Your task to perform on an android device: change your default location settings in chrome Image 0: 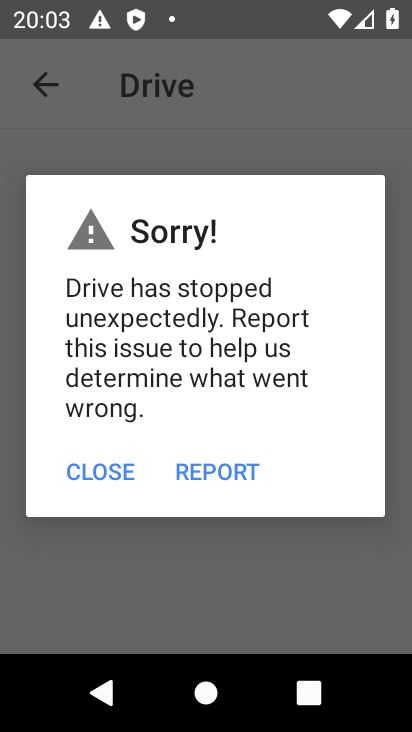
Step 0: press home button
Your task to perform on an android device: change your default location settings in chrome Image 1: 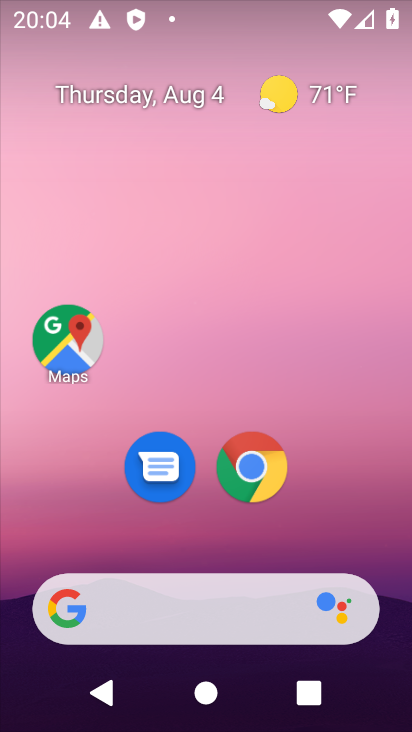
Step 1: drag from (392, 703) to (379, 249)
Your task to perform on an android device: change your default location settings in chrome Image 2: 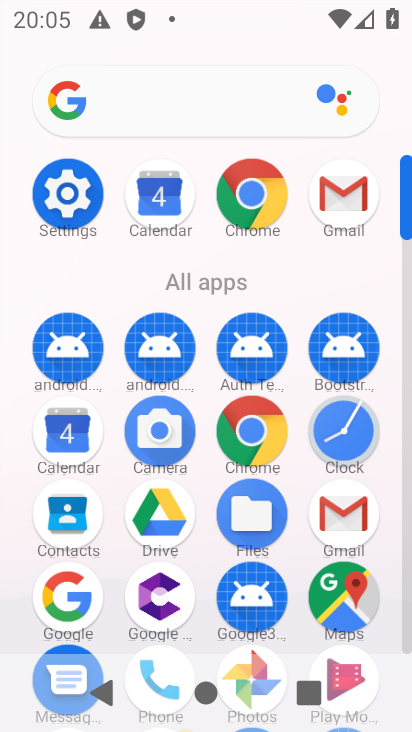
Step 2: click (262, 175)
Your task to perform on an android device: change your default location settings in chrome Image 3: 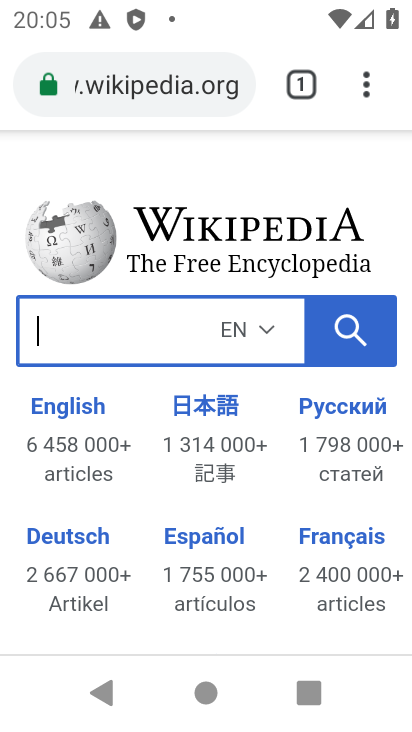
Step 3: press back button
Your task to perform on an android device: change your default location settings in chrome Image 4: 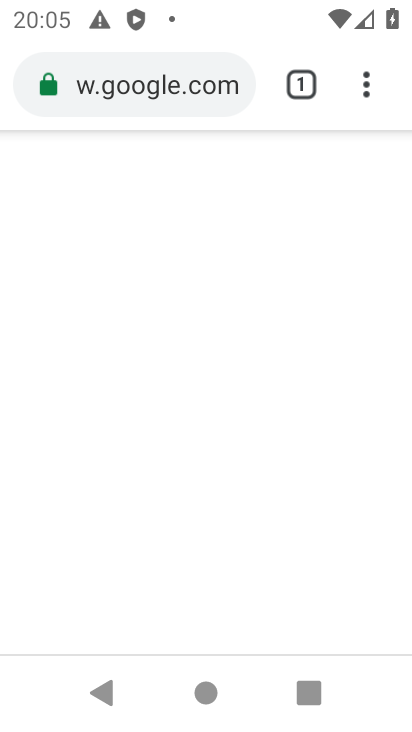
Step 4: press home button
Your task to perform on an android device: change your default location settings in chrome Image 5: 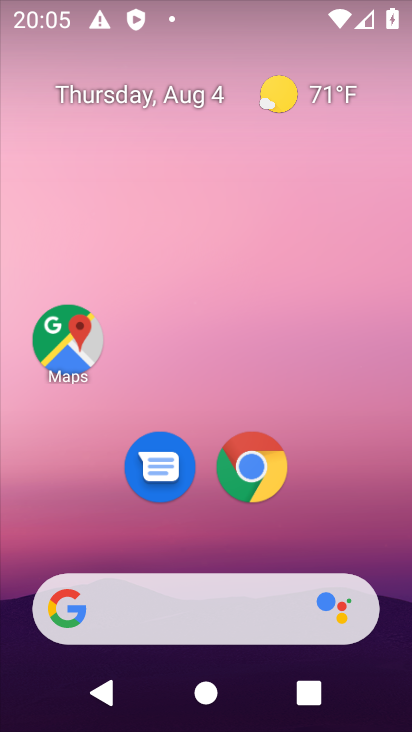
Step 5: click (238, 468)
Your task to perform on an android device: change your default location settings in chrome Image 6: 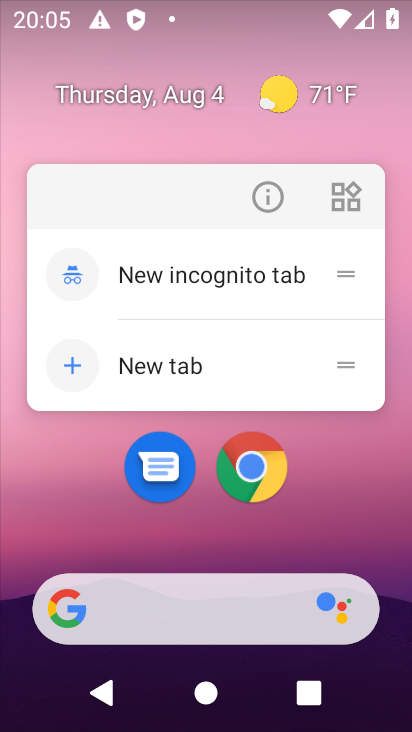
Step 6: click (274, 204)
Your task to perform on an android device: change your default location settings in chrome Image 7: 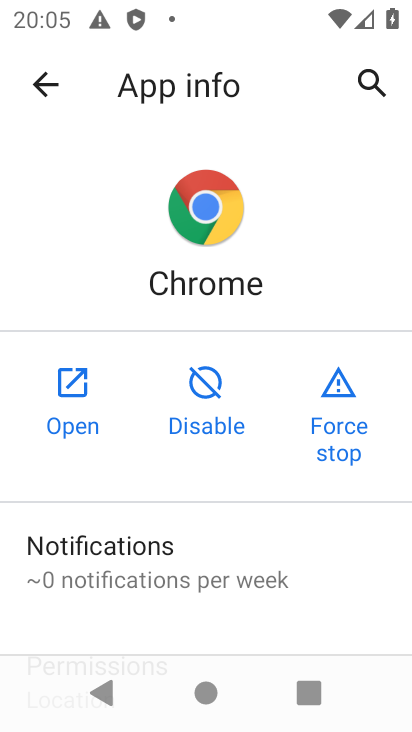
Step 7: drag from (167, 504) to (175, 119)
Your task to perform on an android device: change your default location settings in chrome Image 8: 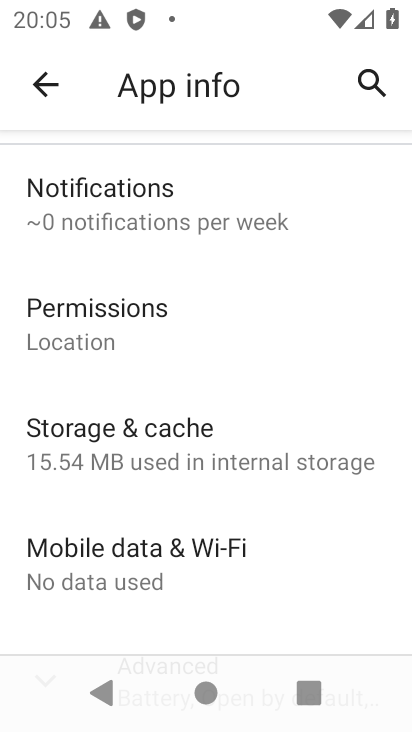
Step 8: click (122, 345)
Your task to perform on an android device: change your default location settings in chrome Image 9: 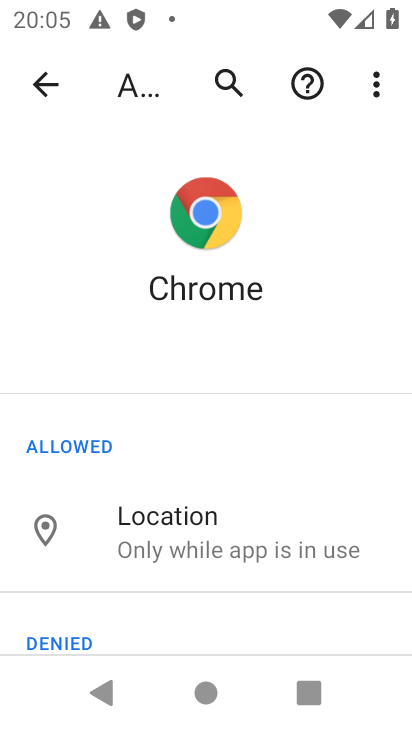
Step 9: drag from (208, 586) to (252, 348)
Your task to perform on an android device: change your default location settings in chrome Image 10: 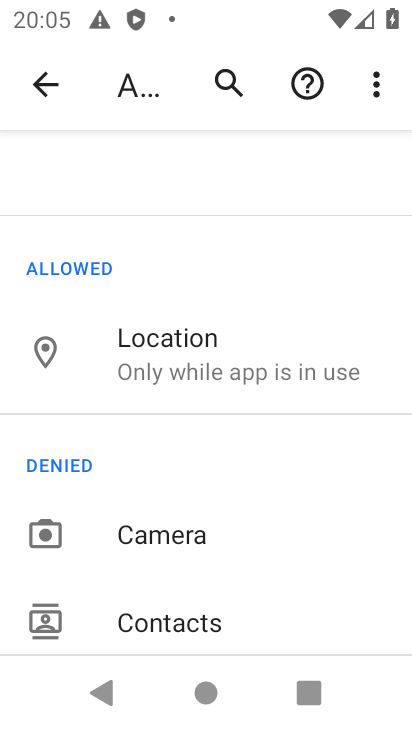
Step 10: click (117, 343)
Your task to perform on an android device: change your default location settings in chrome Image 11: 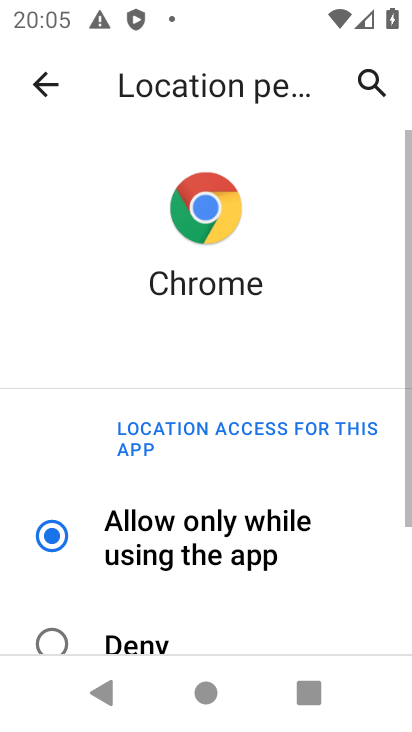
Step 11: drag from (158, 619) to (167, 245)
Your task to perform on an android device: change your default location settings in chrome Image 12: 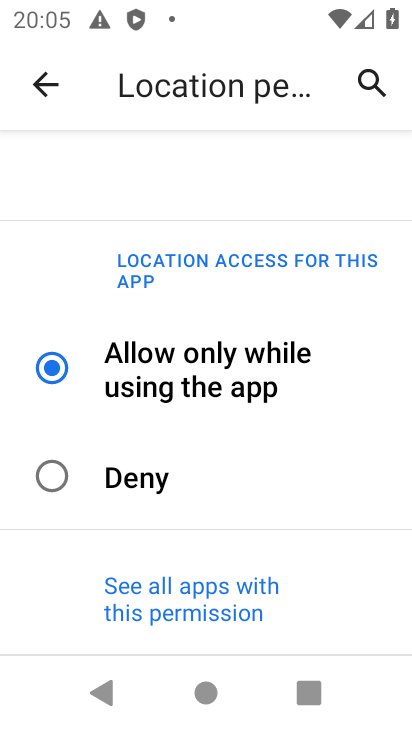
Step 12: click (139, 472)
Your task to perform on an android device: change your default location settings in chrome Image 13: 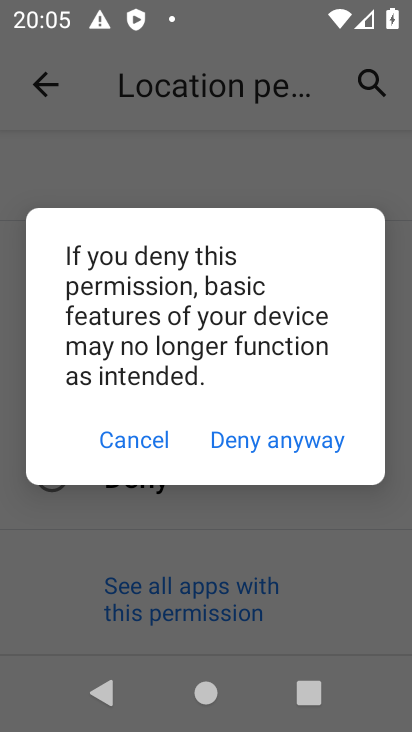
Step 13: click (239, 448)
Your task to perform on an android device: change your default location settings in chrome Image 14: 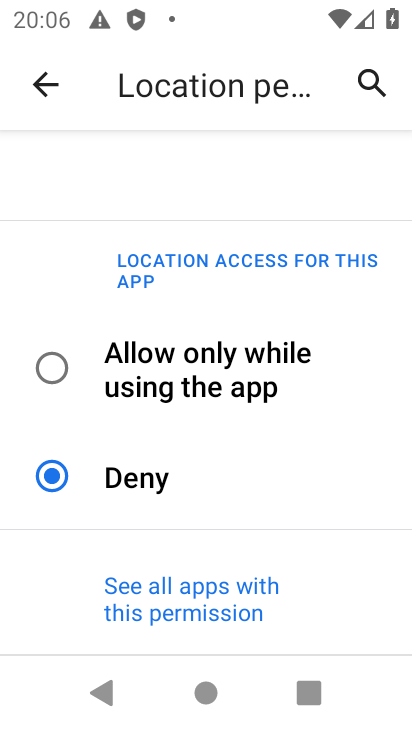
Step 14: task complete